Your task to perform on an android device: Search for pizza restaurants on Maps Image 0: 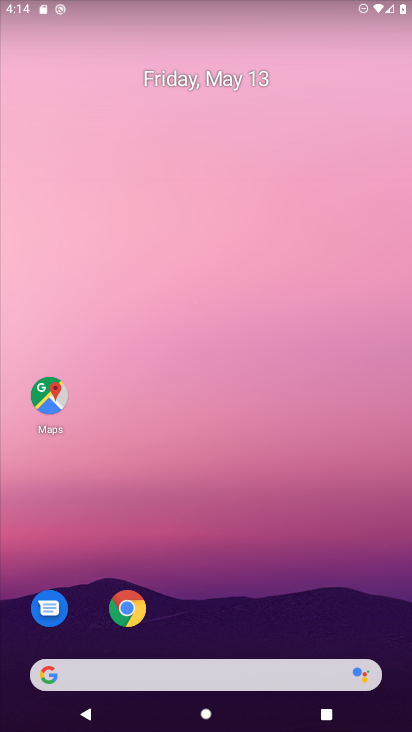
Step 0: drag from (237, 587) to (175, 0)
Your task to perform on an android device: Search for pizza restaurants on Maps Image 1: 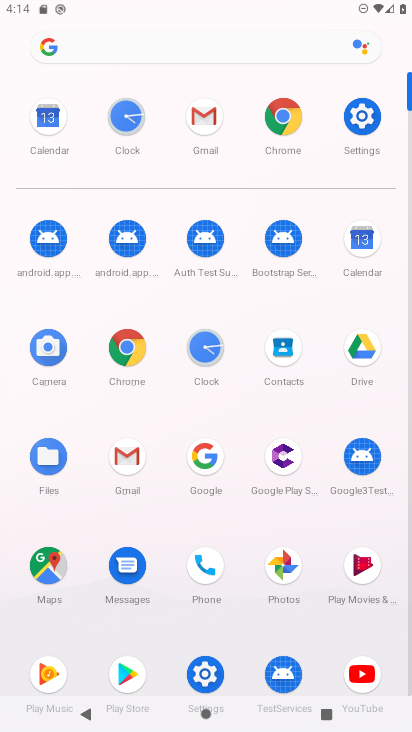
Step 1: click (48, 564)
Your task to perform on an android device: Search for pizza restaurants on Maps Image 2: 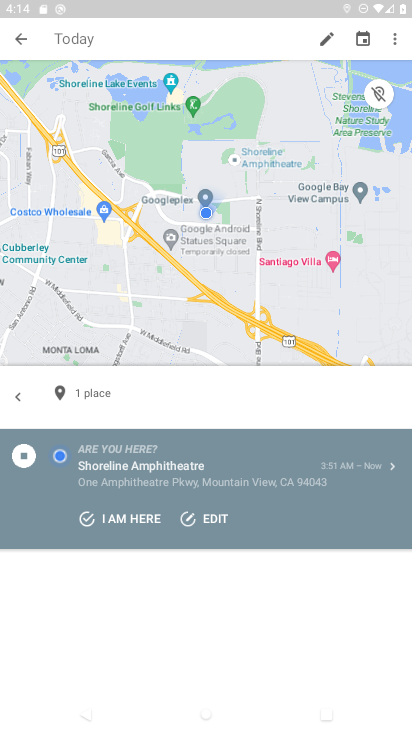
Step 2: press back button
Your task to perform on an android device: Search for pizza restaurants on Maps Image 3: 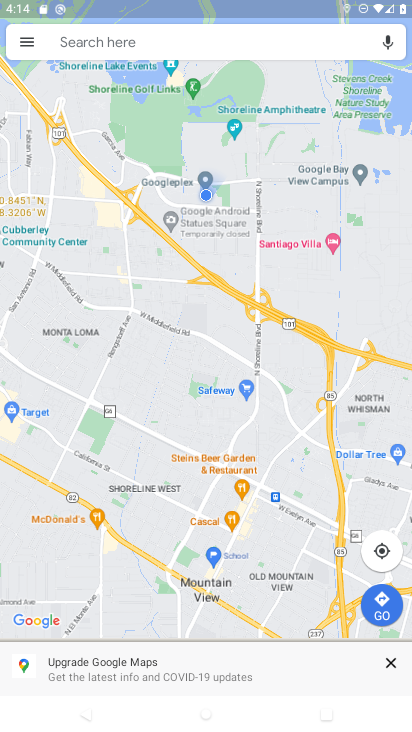
Step 3: click (27, 44)
Your task to perform on an android device: Search for pizza restaurants on Maps Image 4: 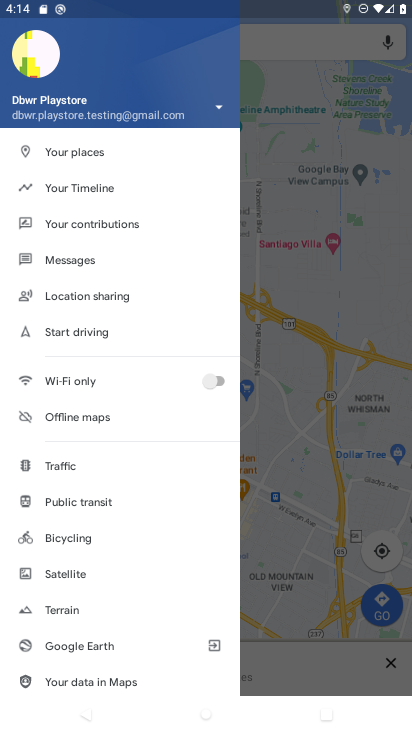
Step 4: click (398, 251)
Your task to perform on an android device: Search for pizza restaurants on Maps Image 5: 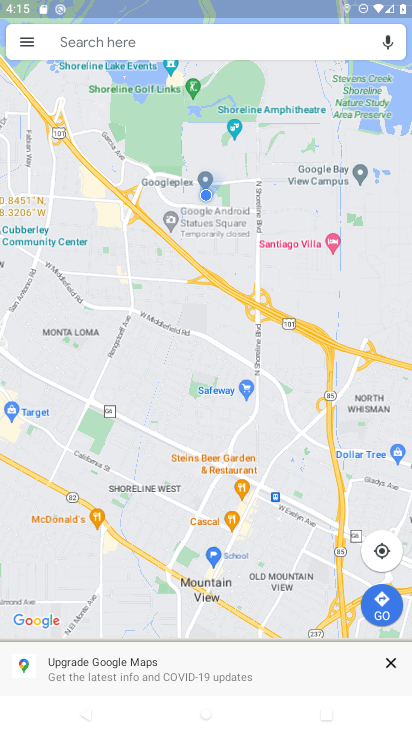
Step 5: click (144, 49)
Your task to perform on an android device: Search for pizza restaurants on Maps Image 6: 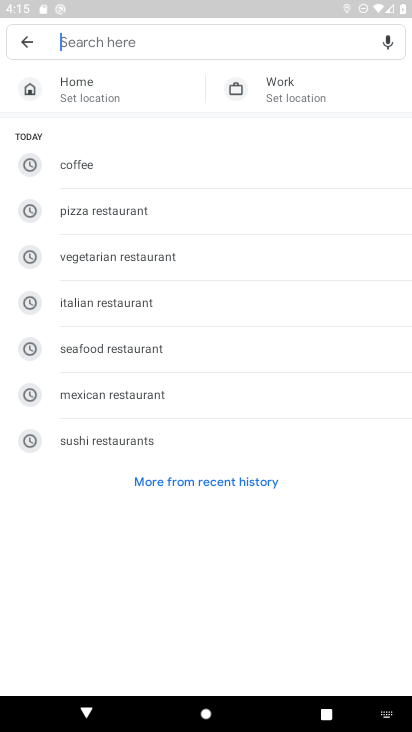
Step 6: click (131, 215)
Your task to perform on an android device: Search for pizza restaurants on Maps Image 7: 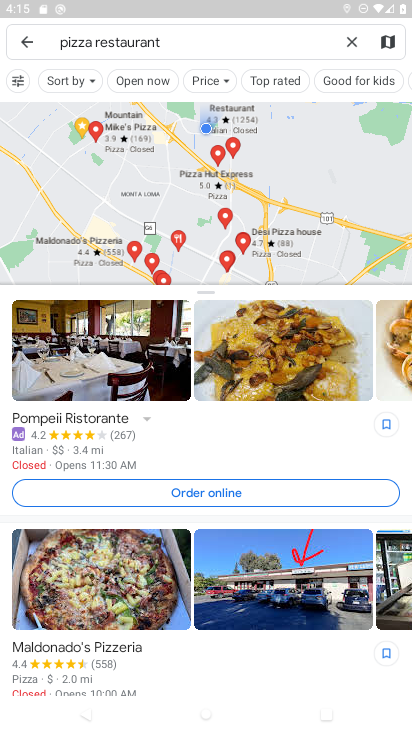
Step 7: task complete